Your task to perform on an android device: open chrome privacy settings Image 0: 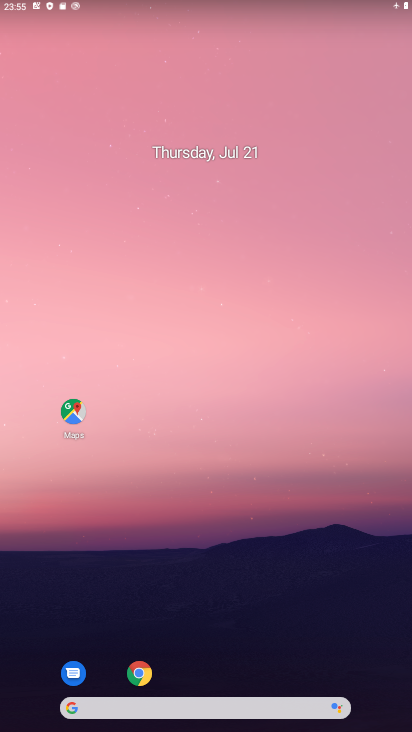
Step 0: click (135, 676)
Your task to perform on an android device: open chrome privacy settings Image 1: 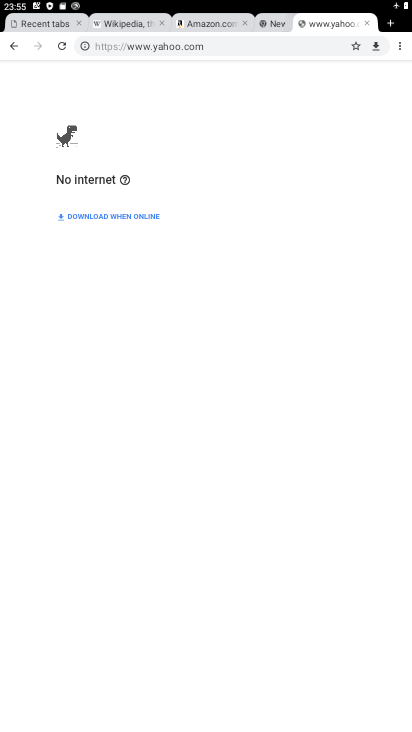
Step 1: click (396, 49)
Your task to perform on an android device: open chrome privacy settings Image 2: 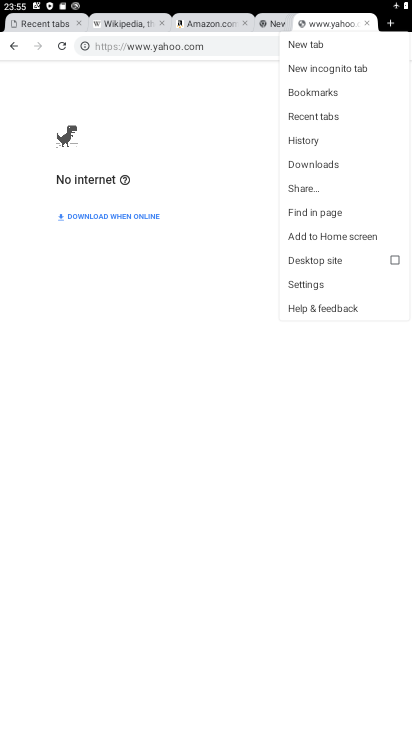
Step 2: click (314, 290)
Your task to perform on an android device: open chrome privacy settings Image 3: 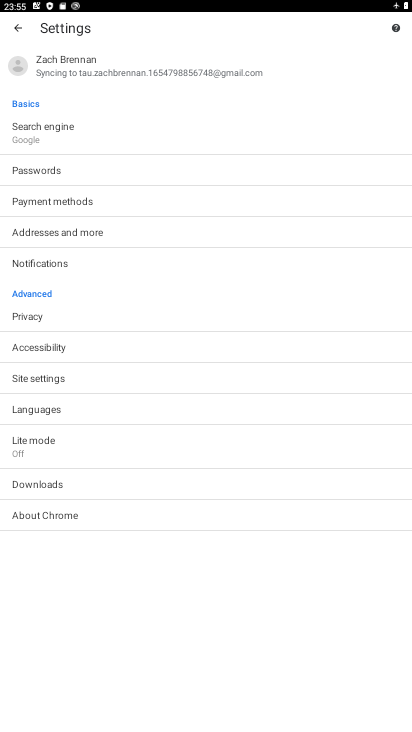
Step 3: click (53, 327)
Your task to perform on an android device: open chrome privacy settings Image 4: 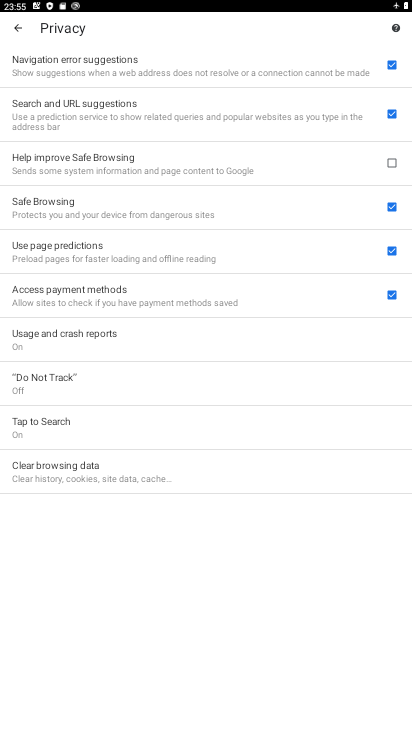
Step 4: task complete